Your task to perform on an android device: Go to settings Image 0: 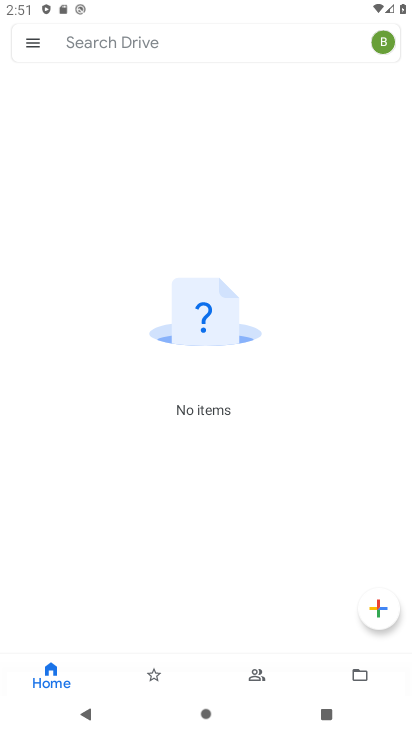
Step 0: press home button
Your task to perform on an android device: Go to settings Image 1: 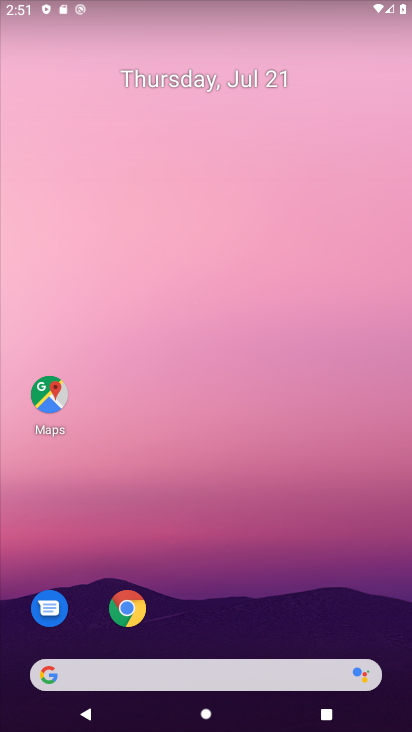
Step 1: drag from (200, 658) to (140, 101)
Your task to perform on an android device: Go to settings Image 2: 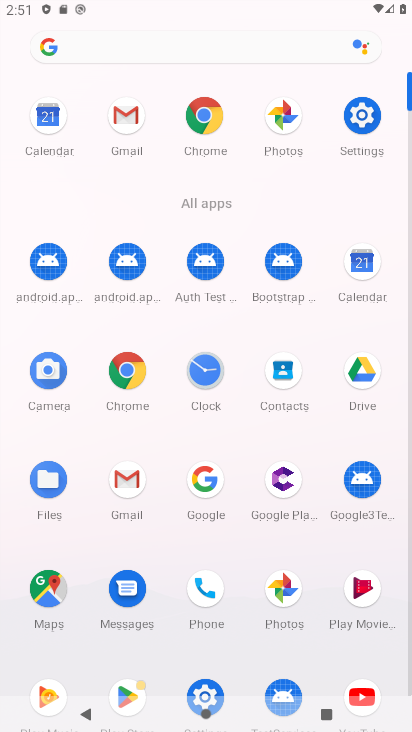
Step 2: click (351, 127)
Your task to perform on an android device: Go to settings Image 3: 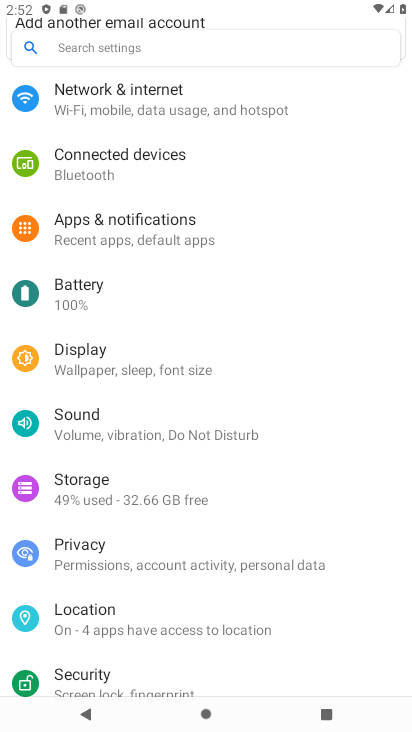
Step 3: task complete